Your task to perform on an android device: choose inbox layout in the gmail app Image 0: 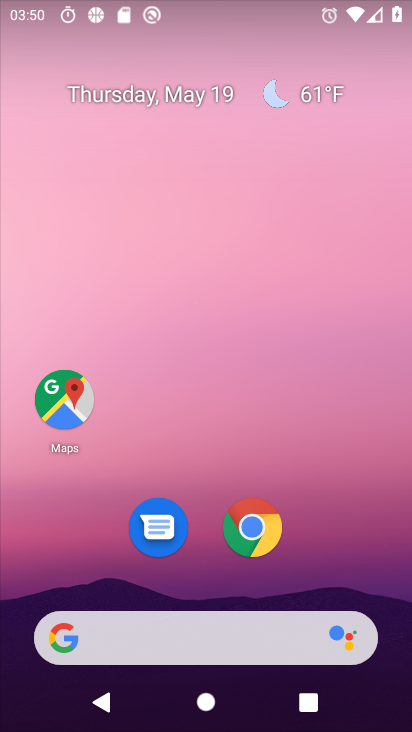
Step 0: drag from (197, 570) to (216, 76)
Your task to perform on an android device: choose inbox layout in the gmail app Image 1: 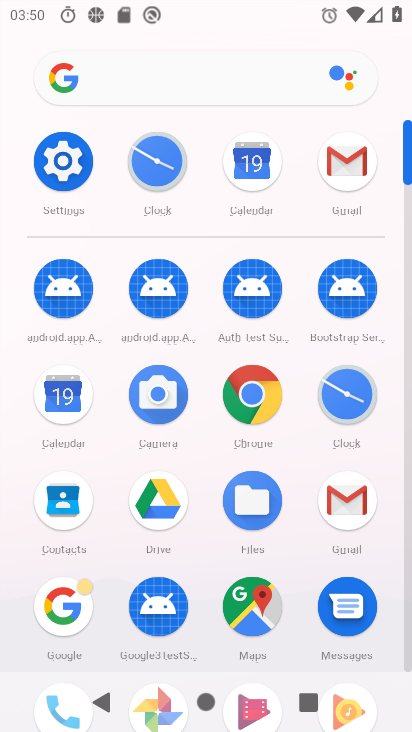
Step 1: click (345, 166)
Your task to perform on an android device: choose inbox layout in the gmail app Image 2: 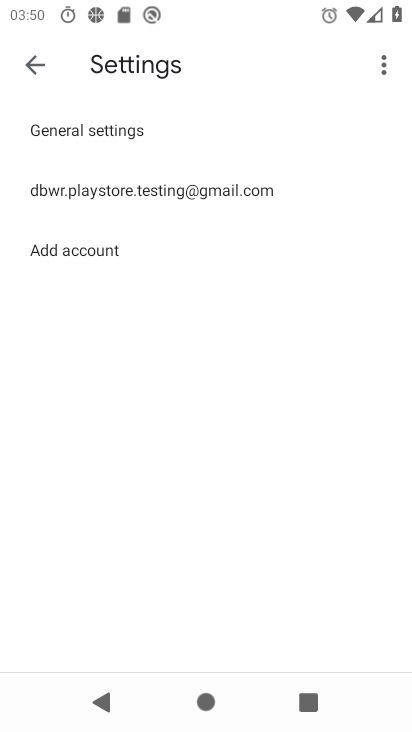
Step 2: click (147, 197)
Your task to perform on an android device: choose inbox layout in the gmail app Image 3: 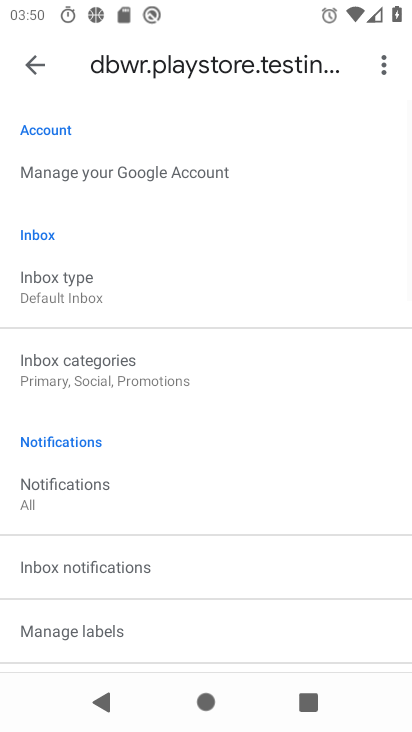
Step 3: click (86, 284)
Your task to perform on an android device: choose inbox layout in the gmail app Image 4: 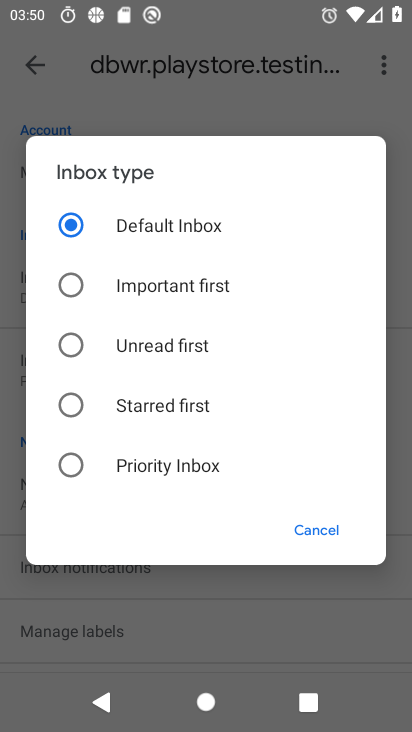
Step 4: click (72, 469)
Your task to perform on an android device: choose inbox layout in the gmail app Image 5: 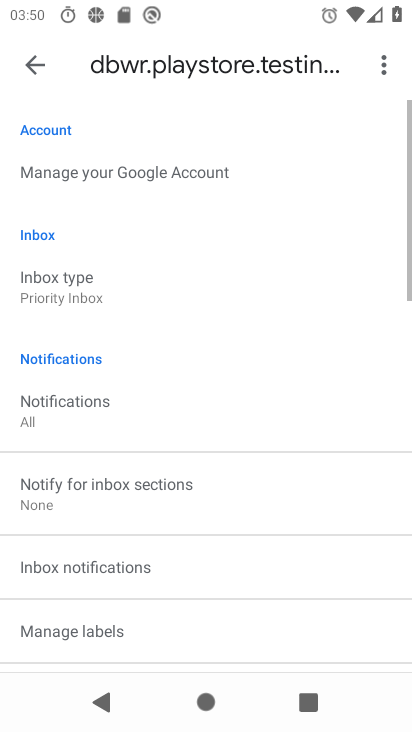
Step 5: task complete